Your task to perform on an android device: check the backup settings in the google photos Image 0: 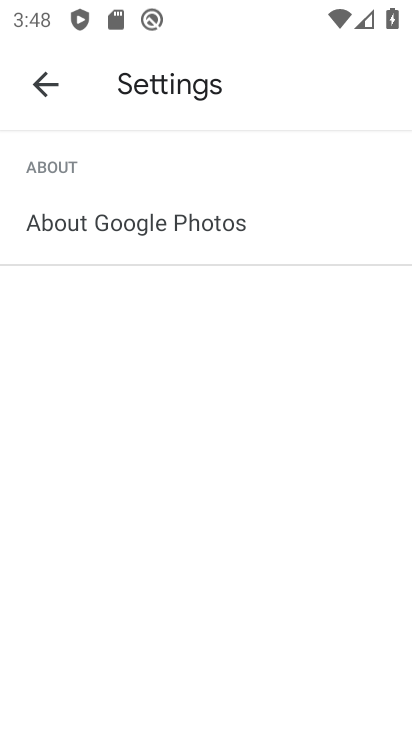
Step 0: drag from (226, 654) to (180, 360)
Your task to perform on an android device: check the backup settings in the google photos Image 1: 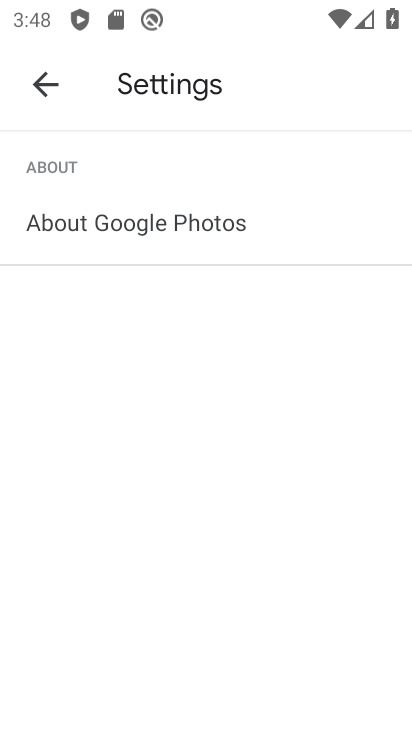
Step 1: press back button
Your task to perform on an android device: check the backup settings in the google photos Image 2: 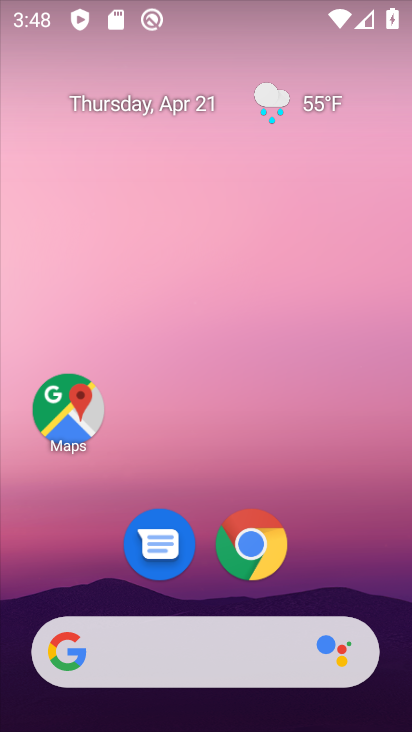
Step 2: drag from (222, 613) to (87, 61)
Your task to perform on an android device: check the backup settings in the google photos Image 3: 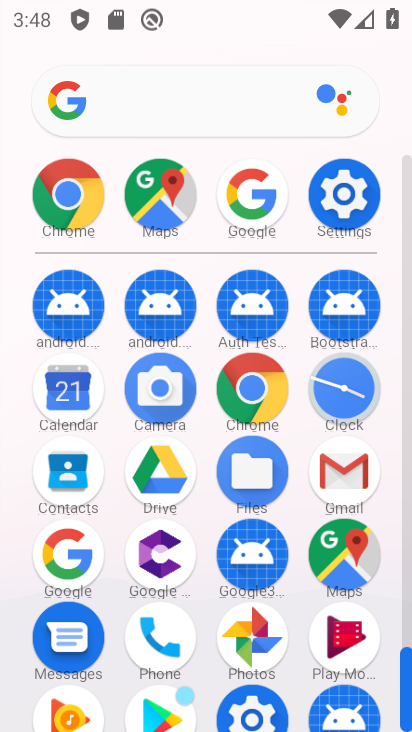
Step 3: click (260, 655)
Your task to perform on an android device: check the backup settings in the google photos Image 4: 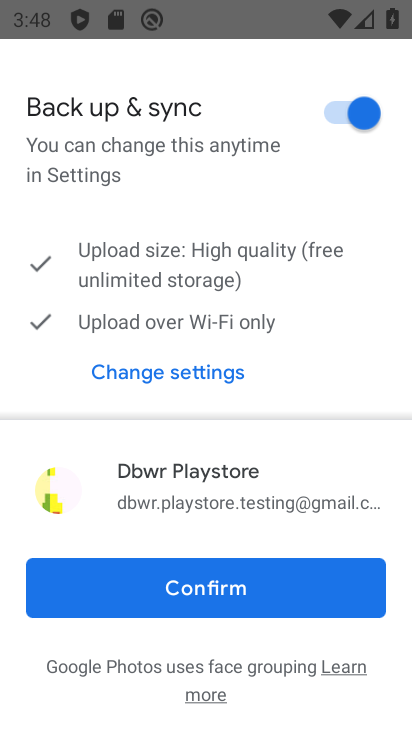
Step 4: click (216, 604)
Your task to perform on an android device: check the backup settings in the google photos Image 5: 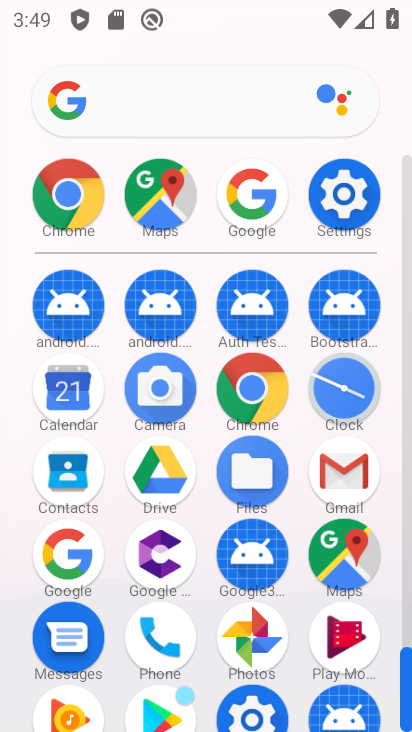
Step 5: click (258, 638)
Your task to perform on an android device: check the backup settings in the google photos Image 6: 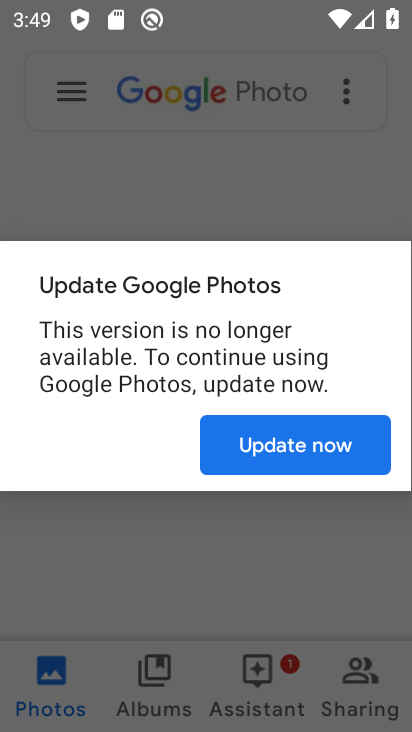
Step 6: click (318, 435)
Your task to perform on an android device: check the backup settings in the google photos Image 7: 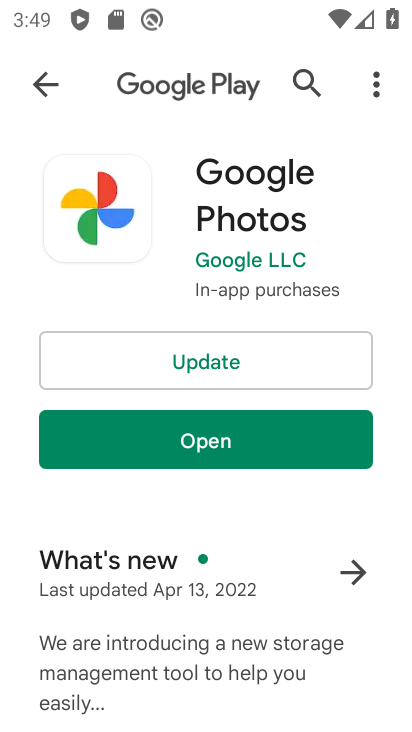
Step 7: click (253, 377)
Your task to perform on an android device: check the backup settings in the google photos Image 8: 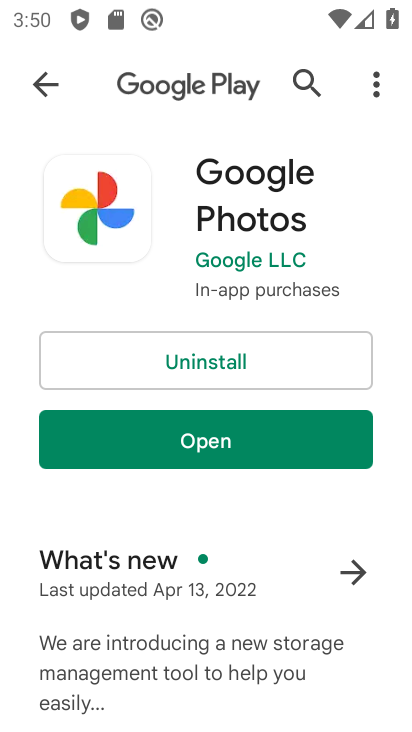
Step 8: click (247, 425)
Your task to perform on an android device: check the backup settings in the google photos Image 9: 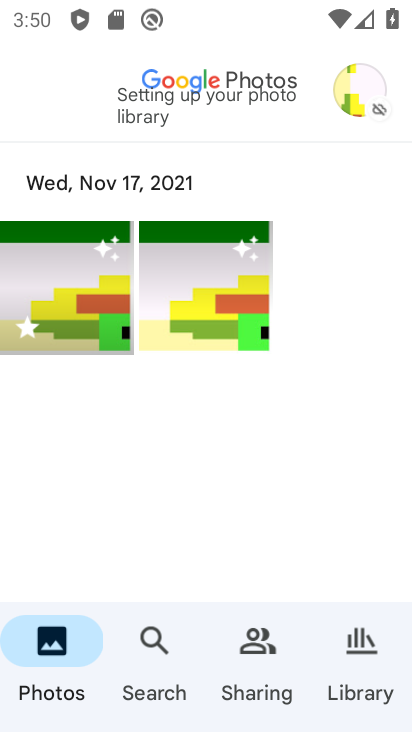
Step 9: click (357, 93)
Your task to perform on an android device: check the backup settings in the google photos Image 10: 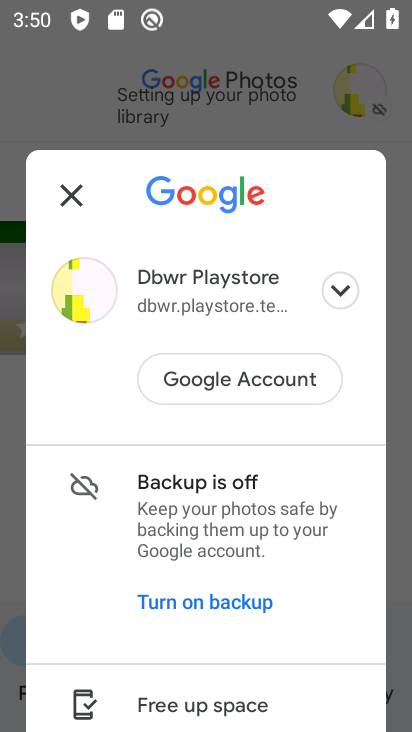
Step 10: drag from (242, 629) to (247, 214)
Your task to perform on an android device: check the backup settings in the google photos Image 11: 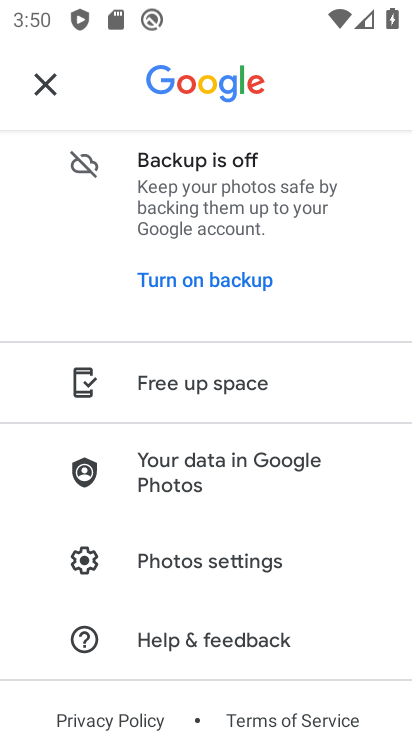
Step 11: click (178, 551)
Your task to perform on an android device: check the backup settings in the google photos Image 12: 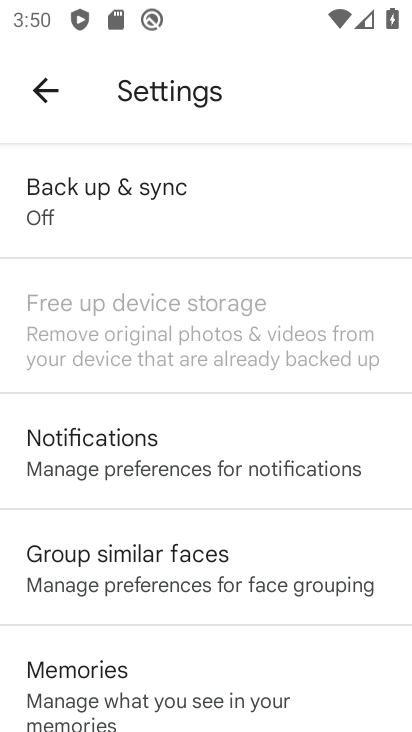
Step 12: click (126, 194)
Your task to perform on an android device: check the backup settings in the google photos Image 13: 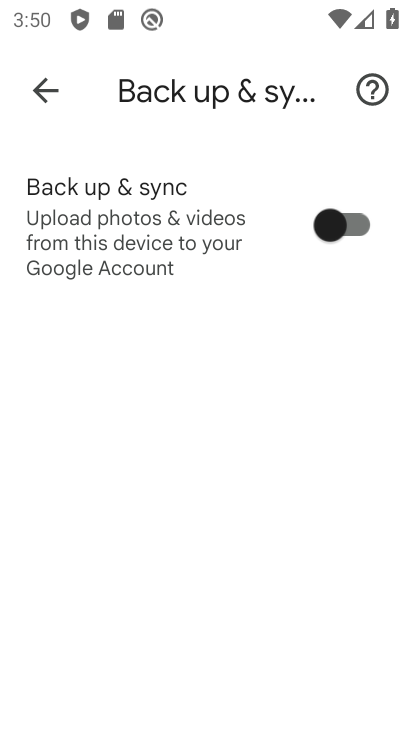
Step 13: click (334, 225)
Your task to perform on an android device: check the backup settings in the google photos Image 14: 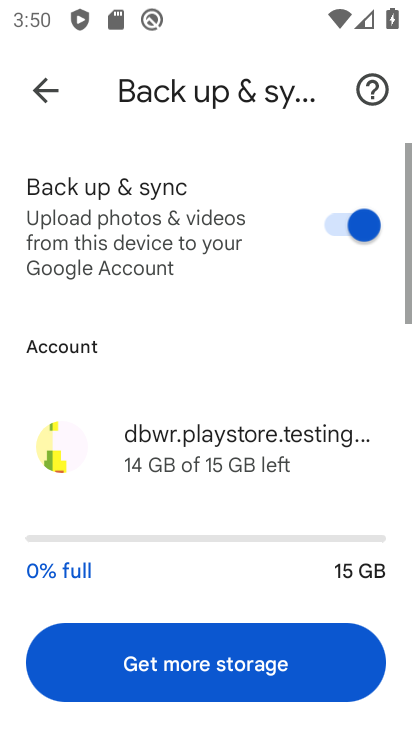
Step 14: task complete